Your task to perform on an android device: allow cookies in the chrome app Image 0: 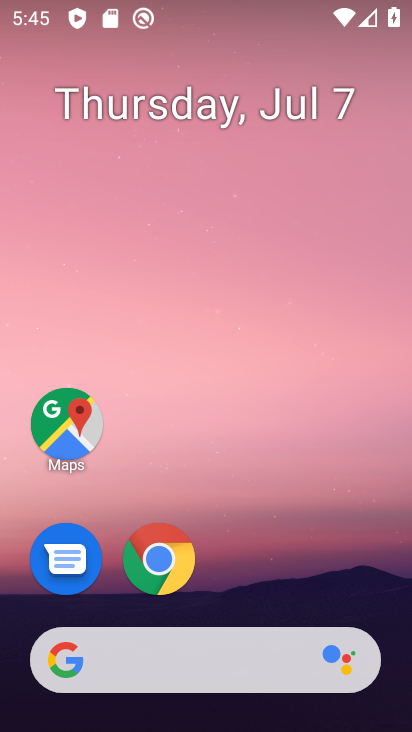
Step 0: drag from (261, 584) to (301, 48)
Your task to perform on an android device: allow cookies in the chrome app Image 1: 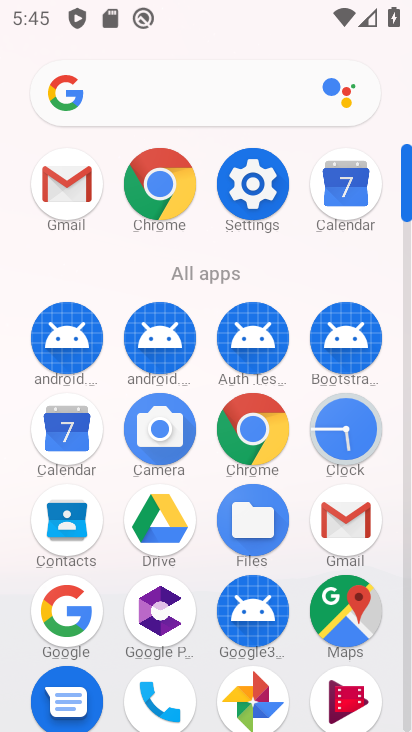
Step 1: click (166, 190)
Your task to perform on an android device: allow cookies in the chrome app Image 2: 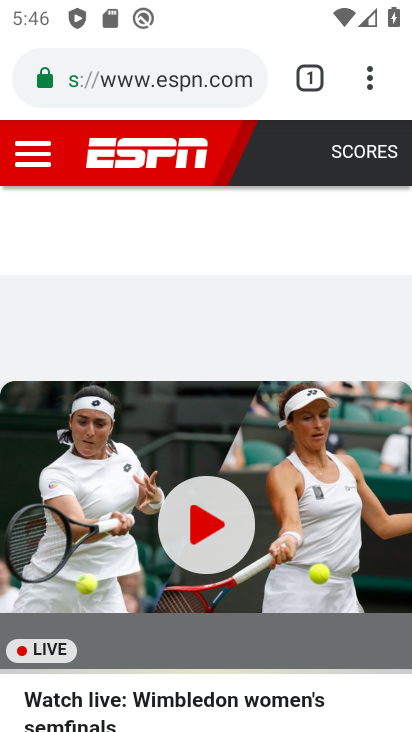
Step 2: click (369, 88)
Your task to perform on an android device: allow cookies in the chrome app Image 3: 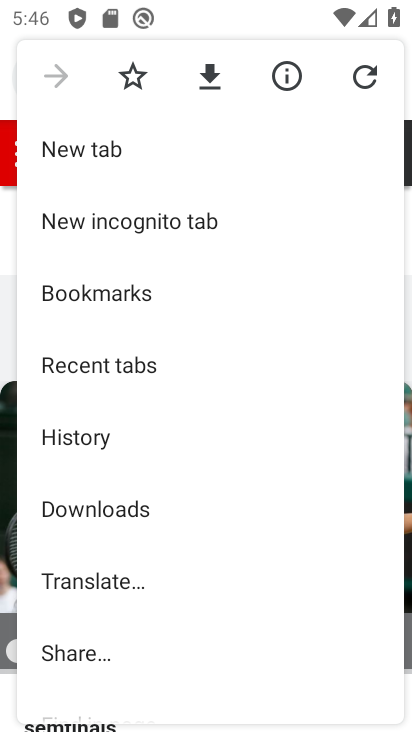
Step 3: drag from (149, 564) to (195, 314)
Your task to perform on an android device: allow cookies in the chrome app Image 4: 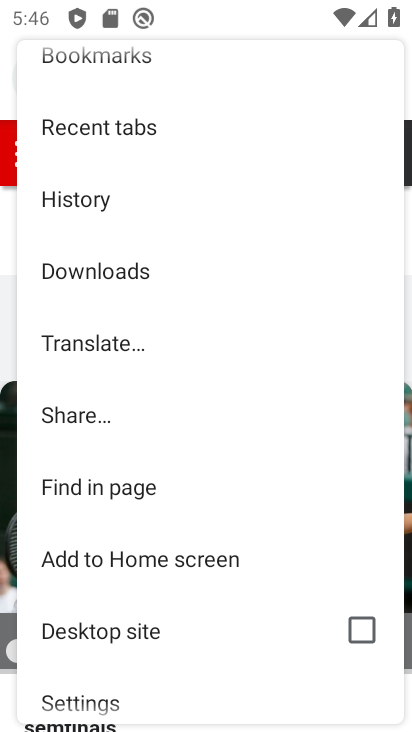
Step 4: click (99, 696)
Your task to perform on an android device: allow cookies in the chrome app Image 5: 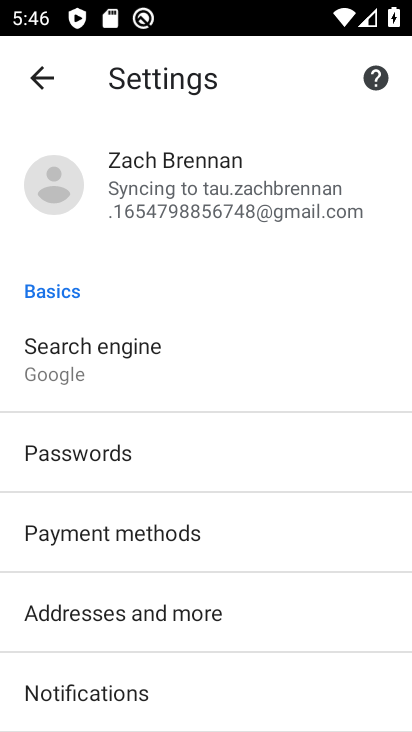
Step 5: drag from (120, 639) to (175, 330)
Your task to perform on an android device: allow cookies in the chrome app Image 6: 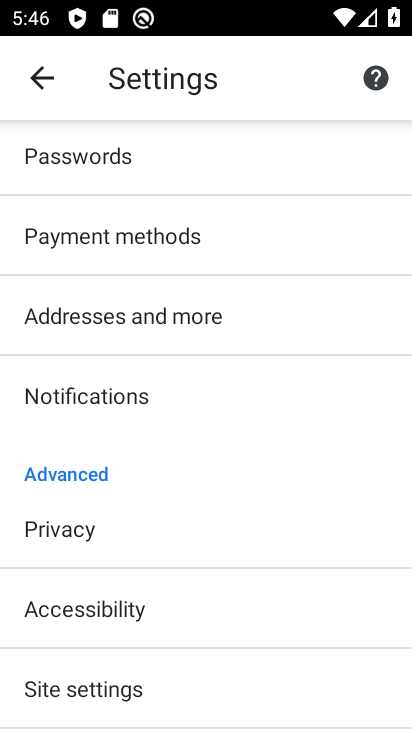
Step 6: drag from (142, 651) to (168, 361)
Your task to perform on an android device: allow cookies in the chrome app Image 7: 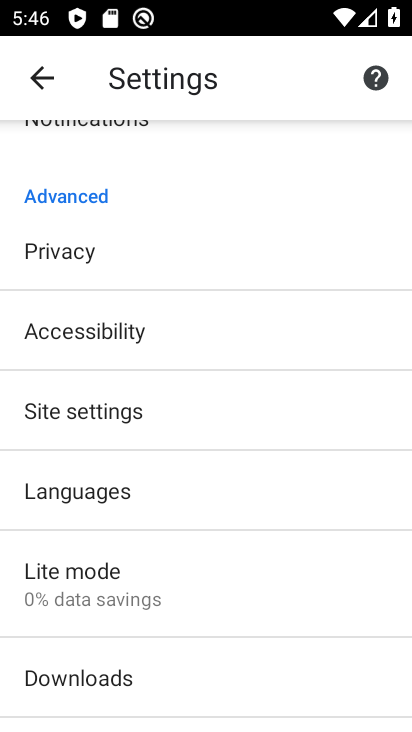
Step 7: click (96, 427)
Your task to perform on an android device: allow cookies in the chrome app Image 8: 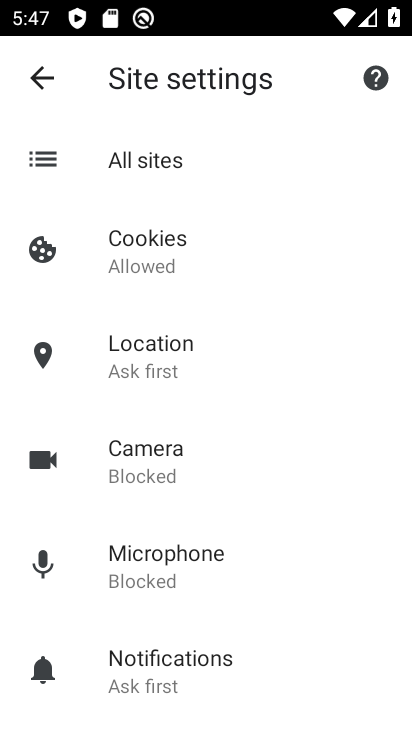
Step 8: click (183, 271)
Your task to perform on an android device: allow cookies in the chrome app Image 9: 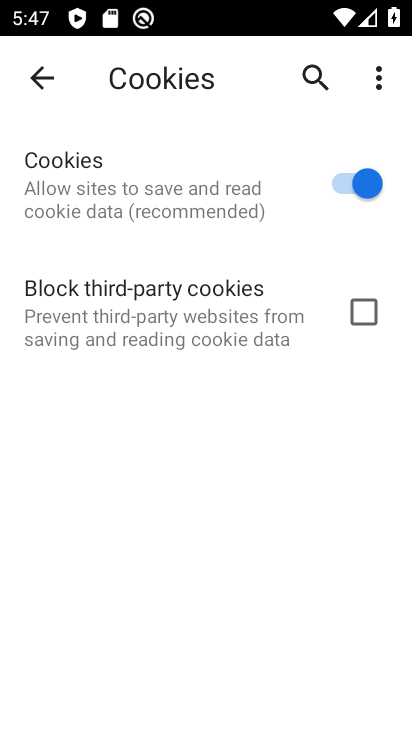
Step 9: task complete